Your task to perform on an android device: toggle pop-ups in chrome Image 0: 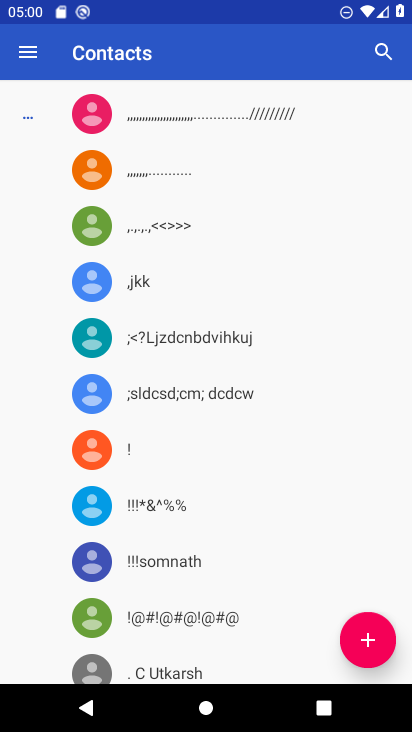
Step 0: press home button
Your task to perform on an android device: toggle pop-ups in chrome Image 1: 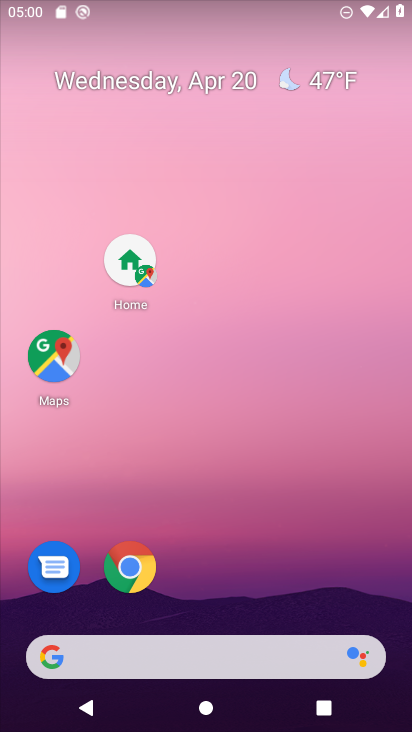
Step 1: click (127, 566)
Your task to perform on an android device: toggle pop-ups in chrome Image 2: 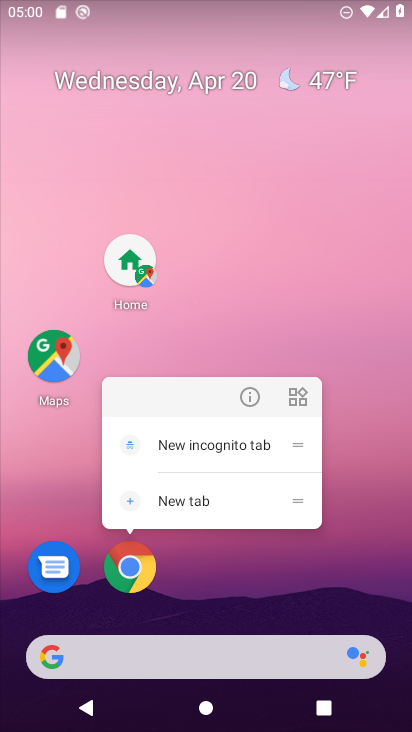
Step 2: click (185, 518)
Your task to perform on an android device: toggle pop-ups in chrome Image 3: 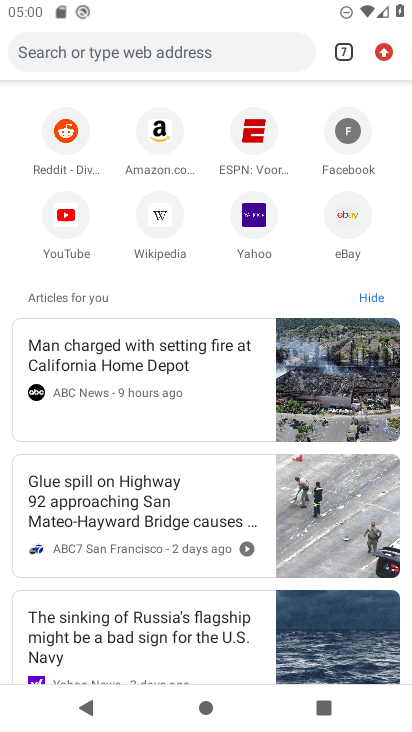
Step 3: click (383, 58)
Your task to perform on an android device: toggle pop-ups in chrome Image 4: 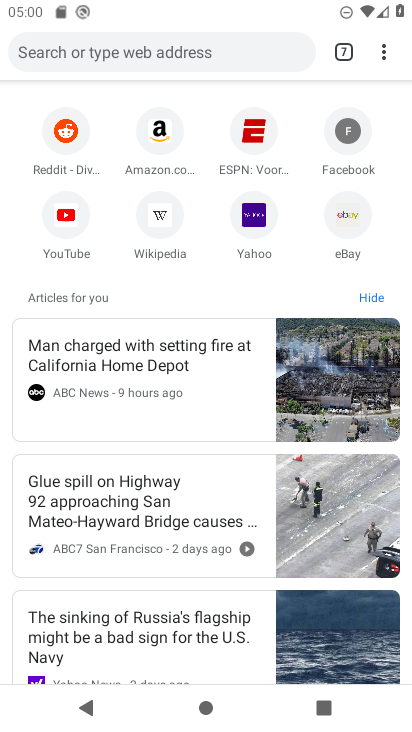
Step 4: click (383, 50)
Your task to perform on an android device: toggle pop-ups in chrome Image 5: 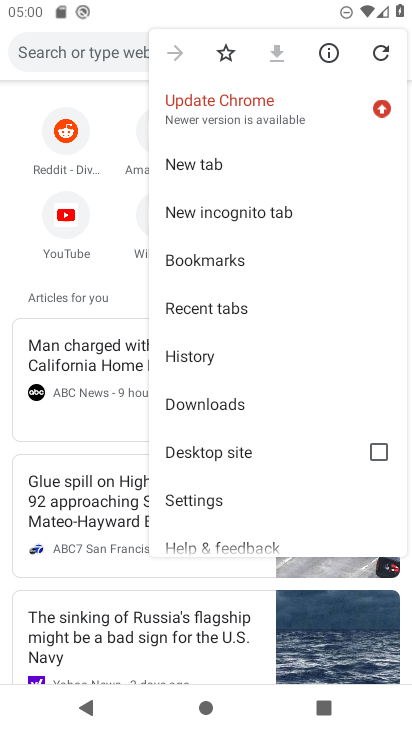
Step 5: click (195, 495)
Your task to perform on an android device: toggle pop-ups in chrome Image 6: 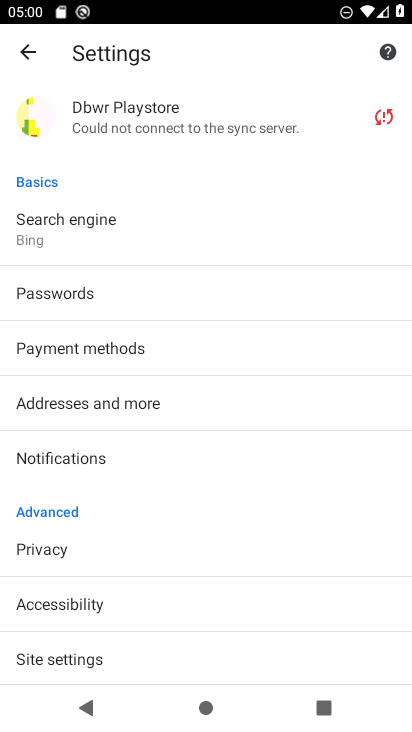
Step 6: drag from (121, 629) to (211, 0)
Your task to perform on an android device: toggle pop-ups in chrome Image 7: 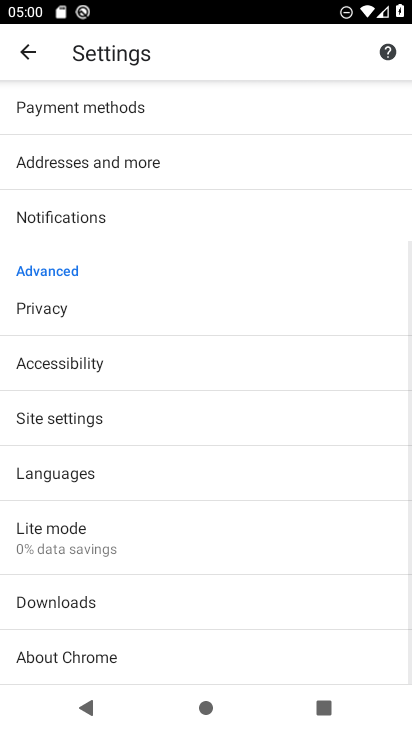
Step 7: drag from (110, 662) to (82, 347)
Your task to perform on an android device: toggle pop-ups in chrome Image 8: 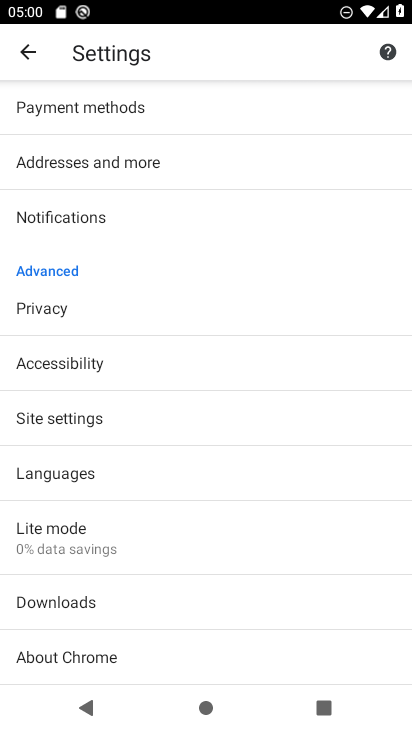
Step 8: click (155, 418)
Your task to perform on an android device: toggle pop-ups in chrome Image 9: 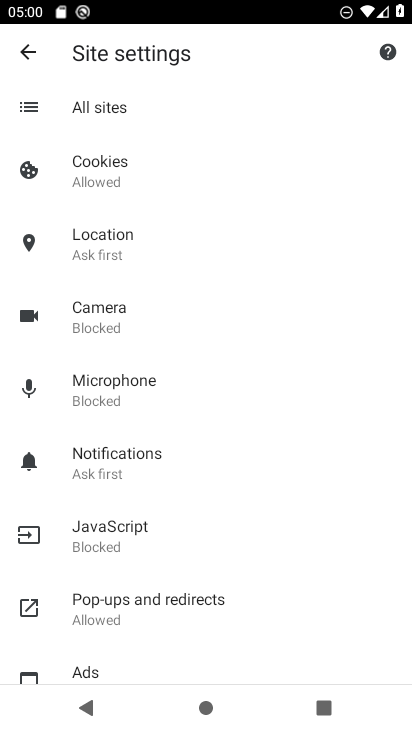
Step 9: click (151, 617)
Your task to perform on an android device: toggle pop-ups in chrome Image 10: 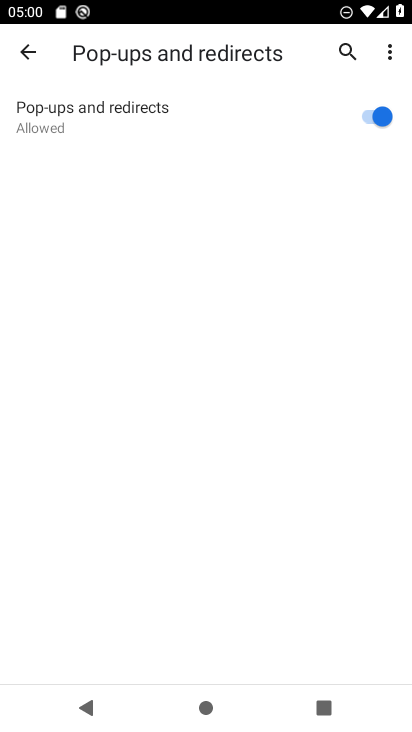
Step 10: click (371, 114)
Your task to perform on an android device: toggle pop-ups in chrome Image 11: 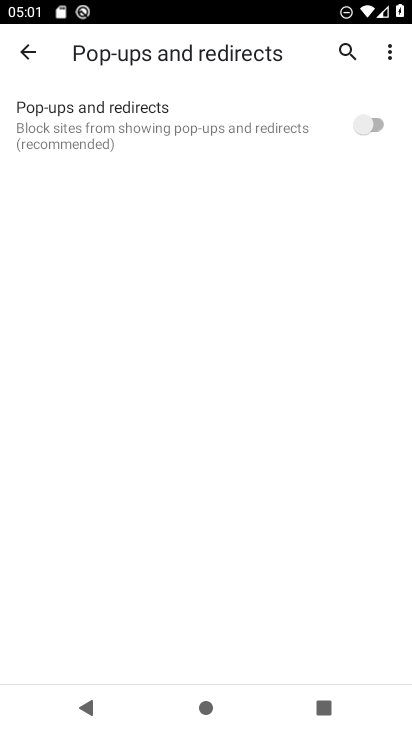
Step 11: task complete